Your task to perform on an android device: turn off priority inbox in the gmail app Image 0: 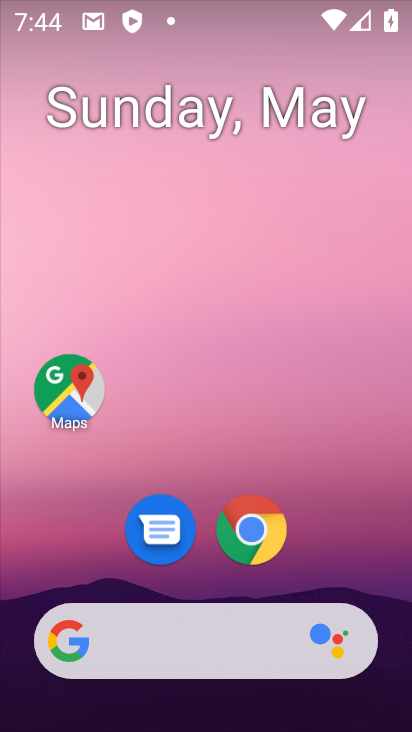
Step 0: drag from (364, 559) to (336, 156)
Your task to perform on an android device: turn off priority inbox in the gmail app Image 1: 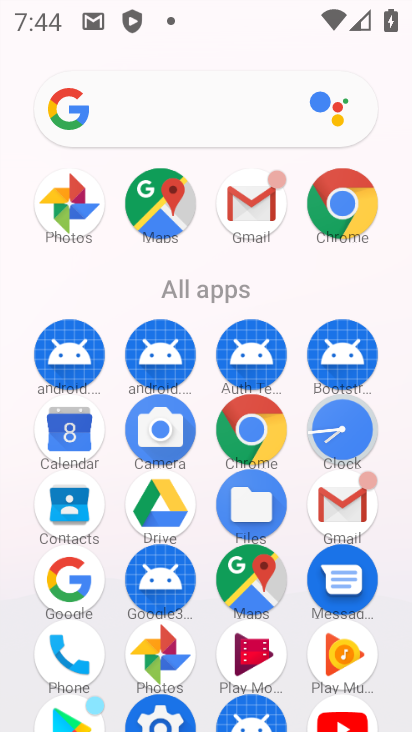
Step 1: click (364, 516)
Your task to perform on an android device: turn off priority inbox in the gmail app Image 2: 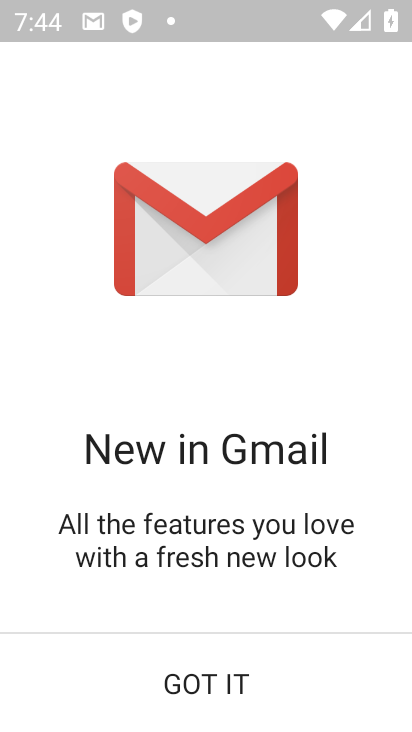
Step 2: click (225, 681)
Your task to perform on an android device: turn off priority inbox in the gmail app Image 3: 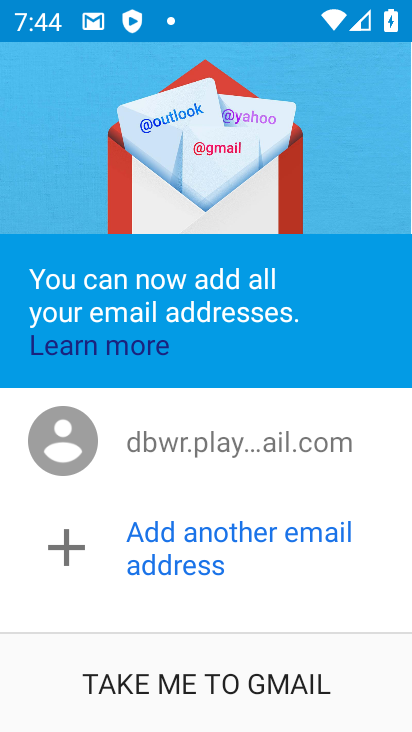
Step 3: click (226, 681)
Your task to perform on an android device: turn off priority inbox in the gmail app Image 4: 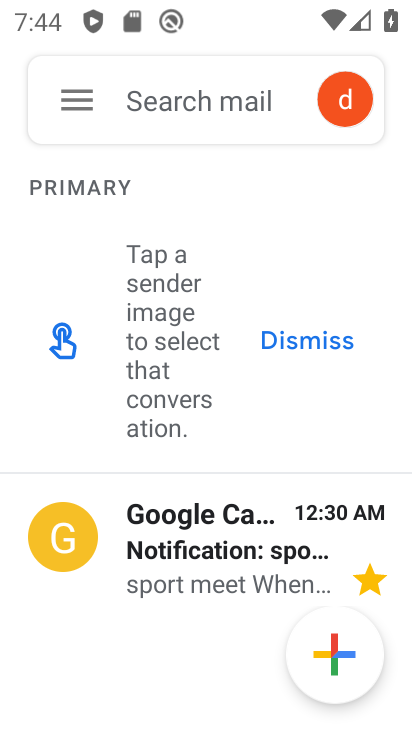
Step 4: click (80, 110)
Your task to perform on an android device: turn off priority inbox in the gmail app Image 5: 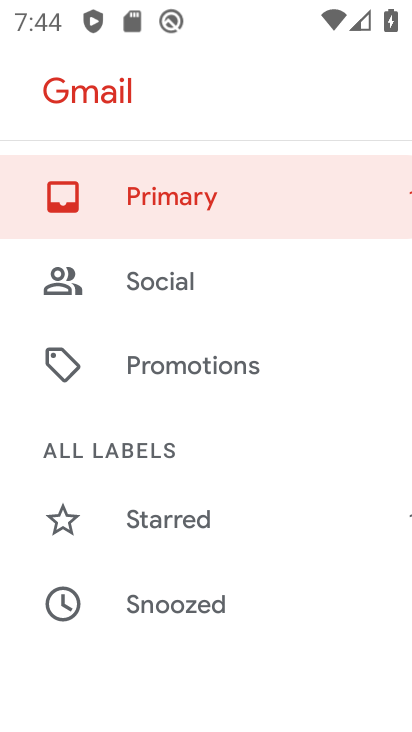
Step 5: drag from (240, 653) to (313, 213)
Your task to perform on an android device: turn off priority inbox in the gmail app Image 6: 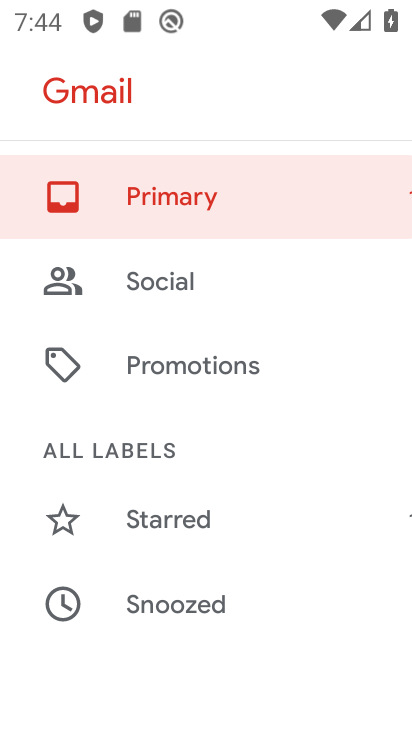
Step 6: drag from (256, 599) to (260, 255)
Your task to perform on an android device: turn off priority inbox in the gmail app Image 7: 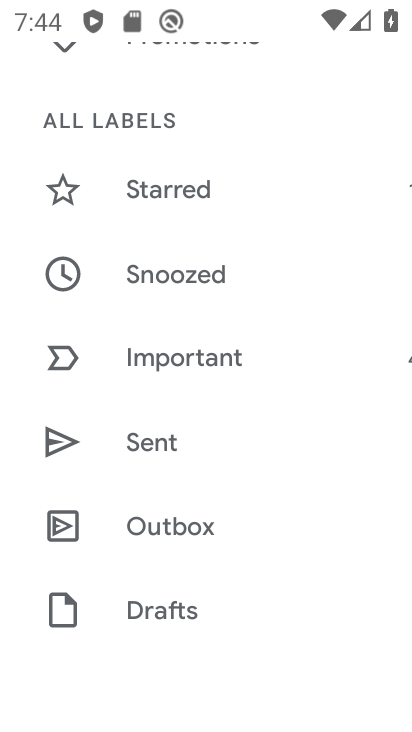
Step 7: drag from (240, 643) to (284, 239)
Your task to perform on an android device: turn off priority inbox in the gmail app Image 8: 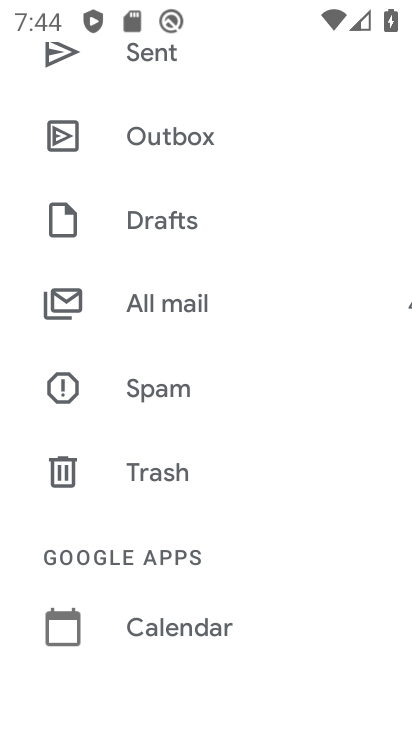
Step 8: drag from (276, 568) to (276, 187)
Your task to perform on an android device: turn off priority inbox in the gmail app Image 9: 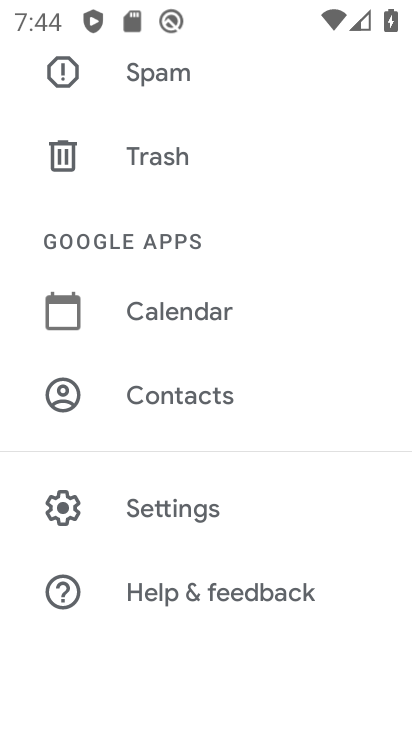
Step 9: click (223, 520)
Your task to perform on an android device: turn off priority inbox in the gmail app Image 10: 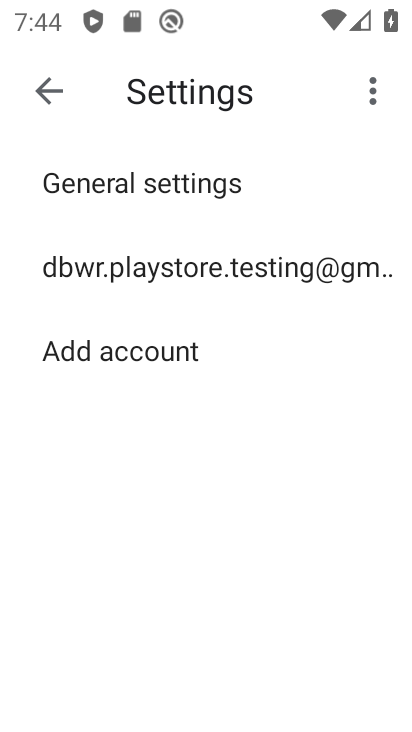
Step 10: click (272, 274)
Your task to perform on an android device: turn off priority inbox in the gmail app Image 11: 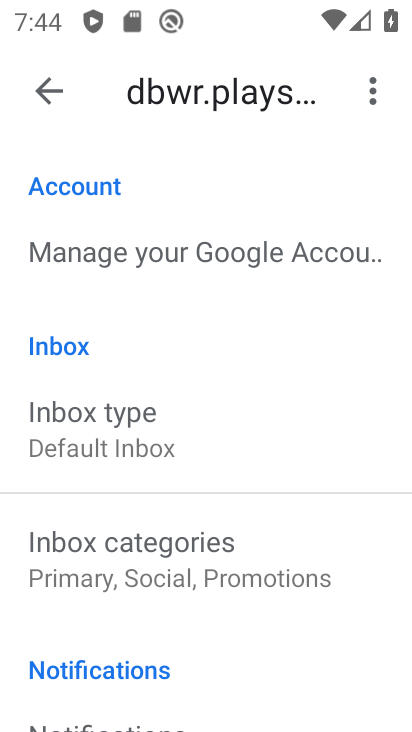
Step 11: click (34, 86)
Your task to perform on an android device: turn off priority inbox in the gmail app Image 12: 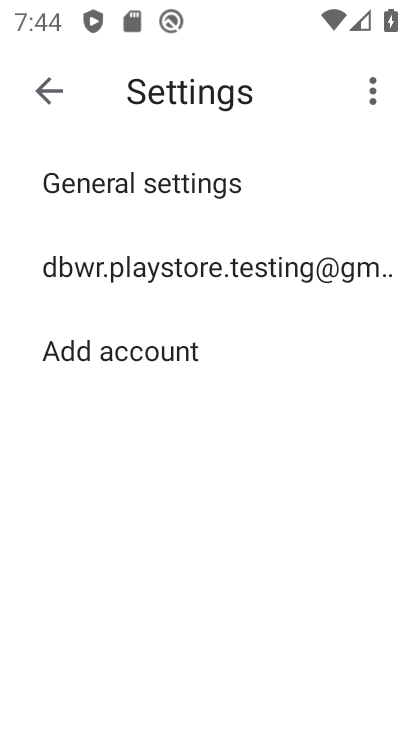
Step 12: click (34, 86)
Your task to perform on an android device: turn off priority inbox in the gmail app Image 13: 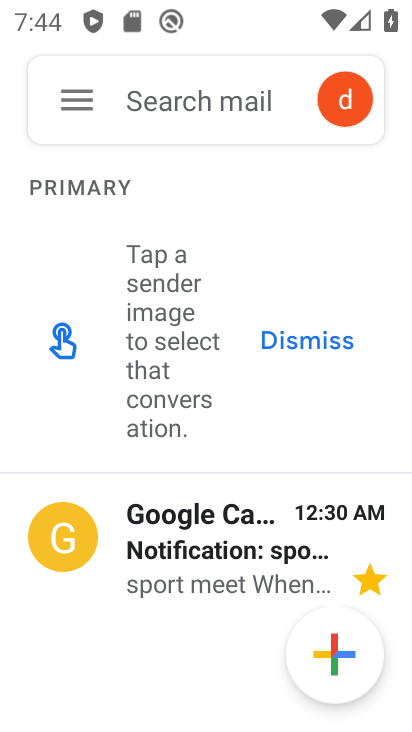
Step 13: click (88, 94)
Your task to perform on an android device: turn off priority inbox in the gmail app Image 14: 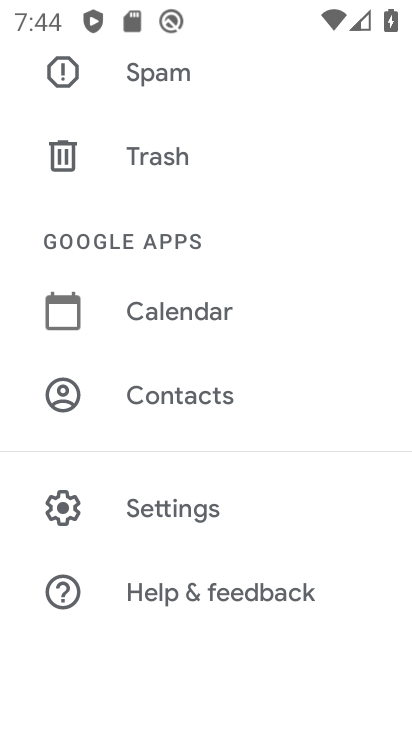
Step 14: drag from (244, 116) to (230, 576)
Your task to perform on an android device: turn off priority inbox in the gmail app Image 15: 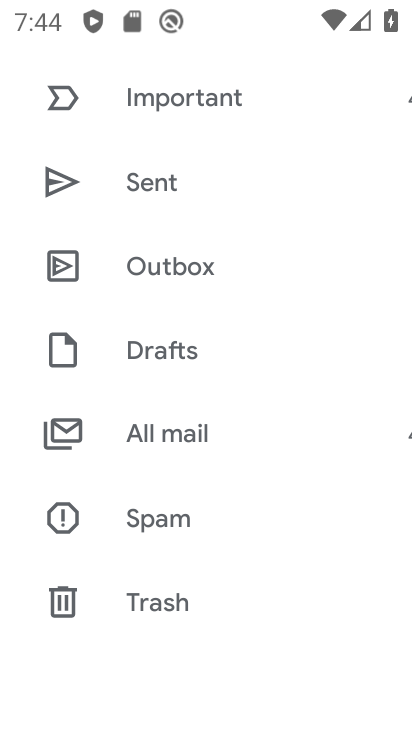
Step 15: drag from (290, 142) to (260, 598)
Your task to perform on an android device: turn off priority inbox in the gmail app Image 16: 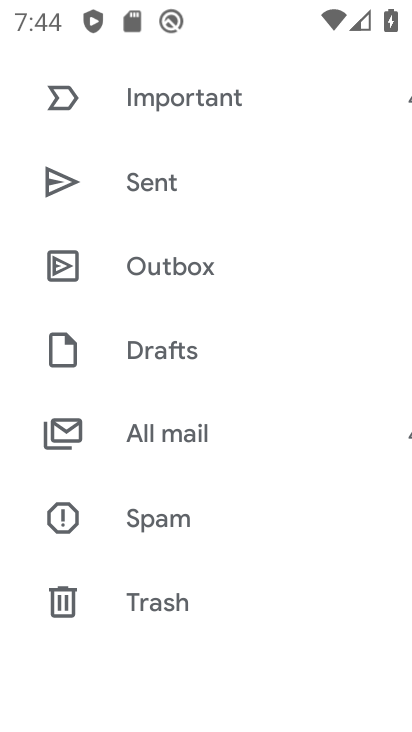
Step 16: drag from (271, 198) to (225, 640)
Your task to perform on an android device: turn off priority inbox in the gmail app Image 17: 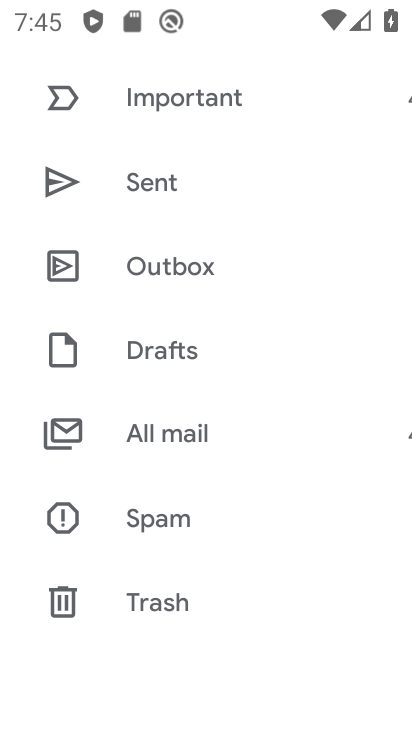
Step 17: drag from (146, 129) to (103, 450)
Your task to perform on an android device: turn off priority inbox in the gmail app Image 18: 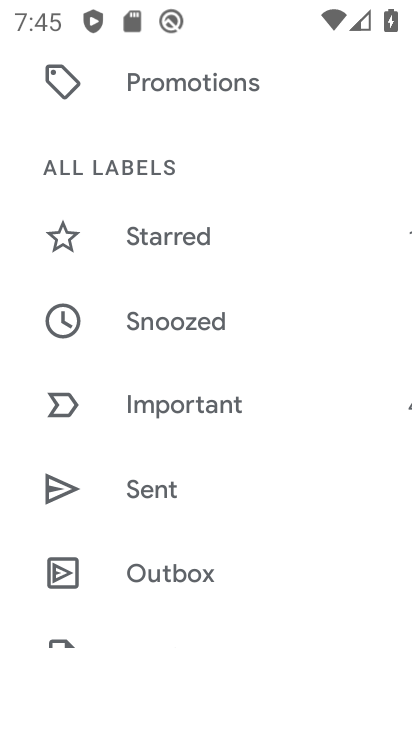
Step 18: drag from (204, 99) to (208, 508)
Your task to perform on an android device: turn off priority inbox in the gmail app Image 19: 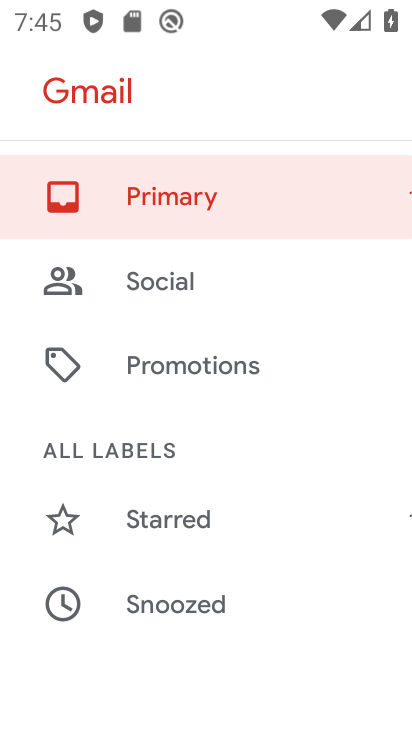
Step 19: click (157, 175)
Your task to perform on an android device: turn off priority inbox in the gmail app Image 20: 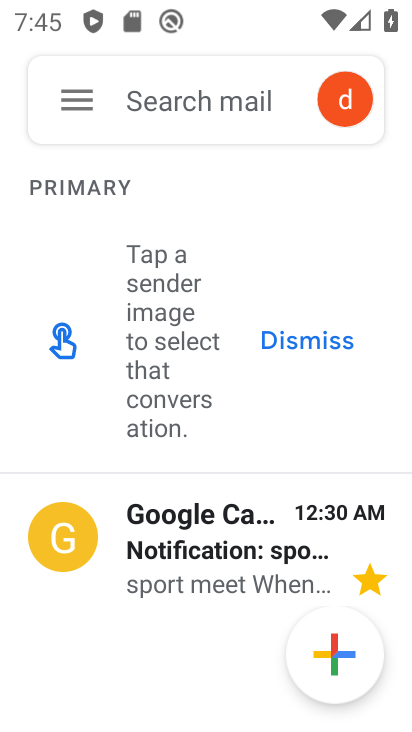
Step 20: task complete